Your task to perform on an android device: Go to Google maps Image 0: 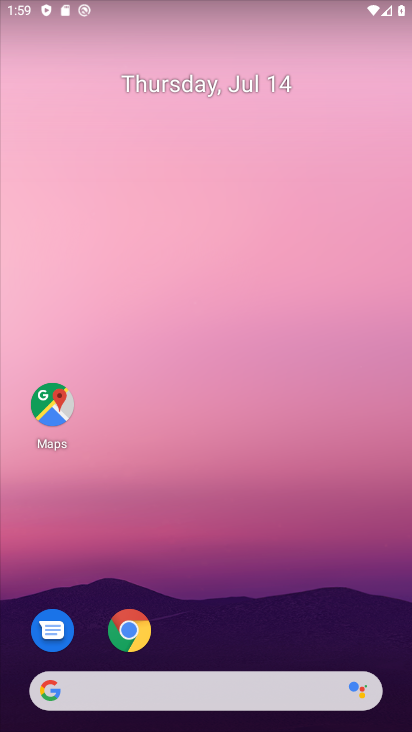
Step 0: drag from (205, 654) to (264, 184)
Your task to perform on an android device: Go to Google maps Image 1: 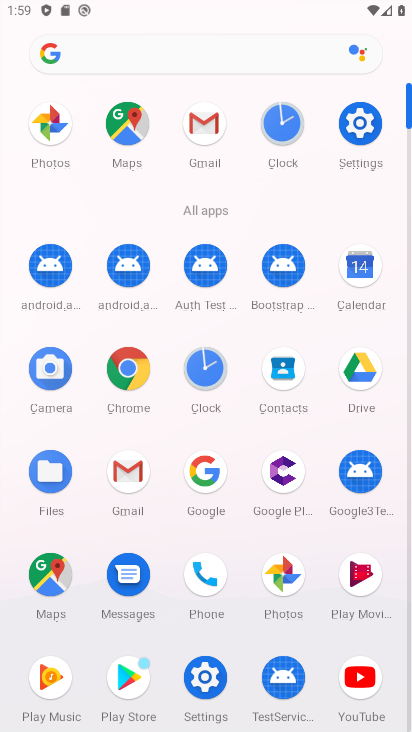
Step 1: click (53, 586)
Your task to perform on an android device: Go to Google maps Image 2: 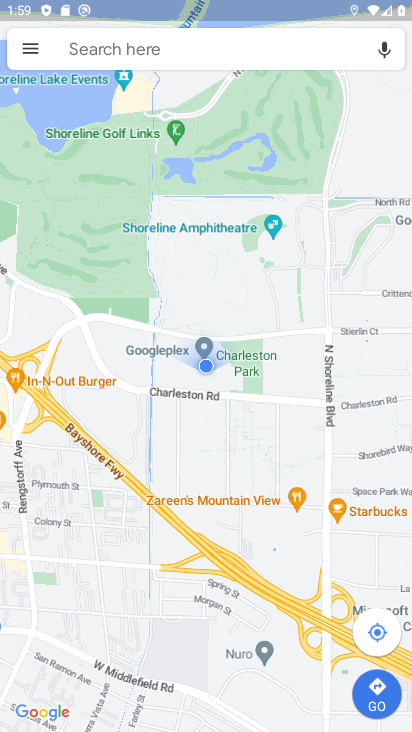
Step 2: task complete